Your task to perform on an android device: Toggle the flashlight Image 0: 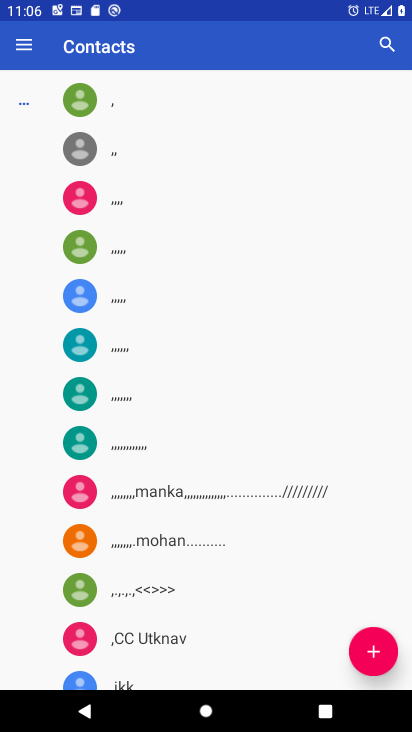
Step 0: press home button
Your task to perform on an android device: Toggle the flashlight Image 1: 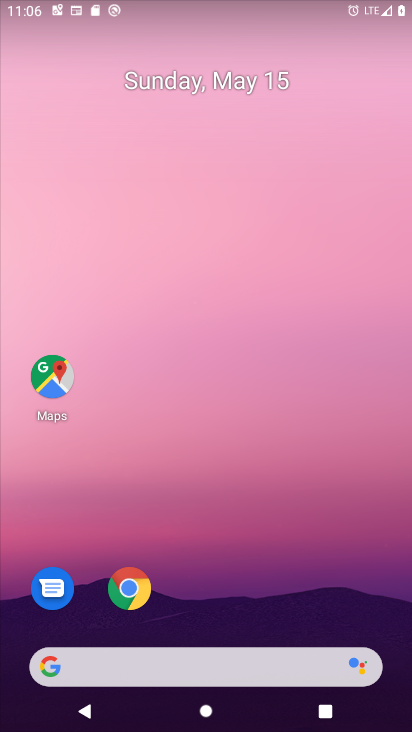
Step 1: drag from (271, 578) to (227, 160)
Your task to perform on an android device: Toggle the flashlight Image 2: 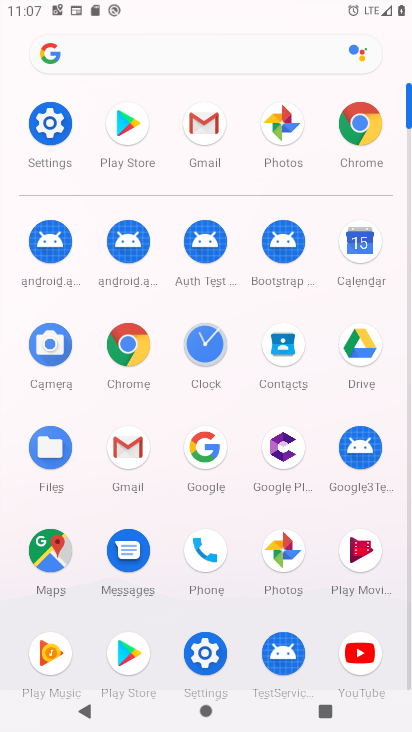
Step 2: click (37, 127)
Your task to perform on an android device: Toggle the flashlight Image 3: 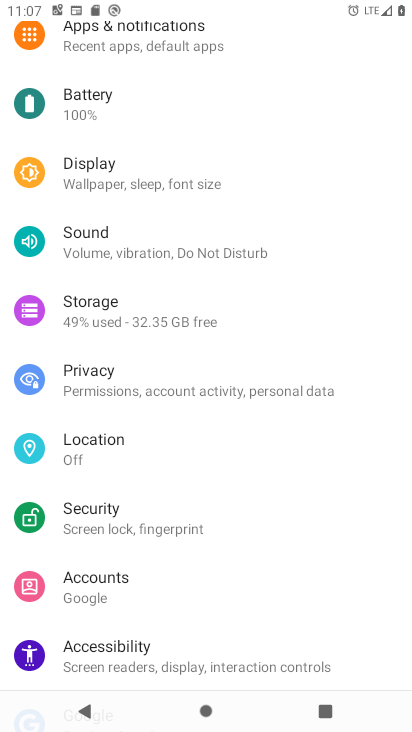
Step 3: click (155, 28)
Your task to perform on an android device: Toggle the flashlight Image 4: 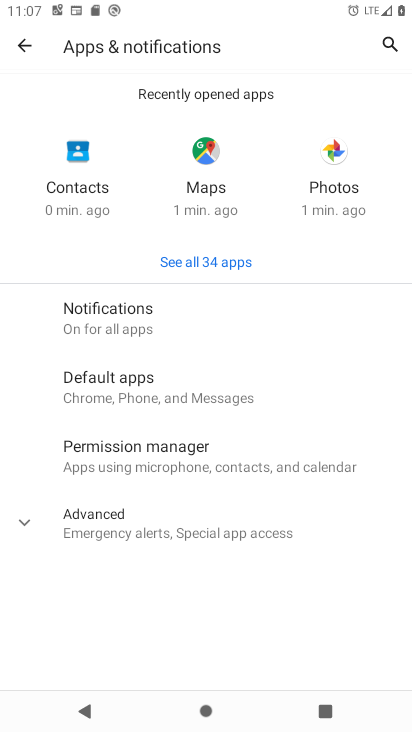
Step 4: click (147, 524)
Your task to perform on an android device: Toggle the flashlight Image 5: 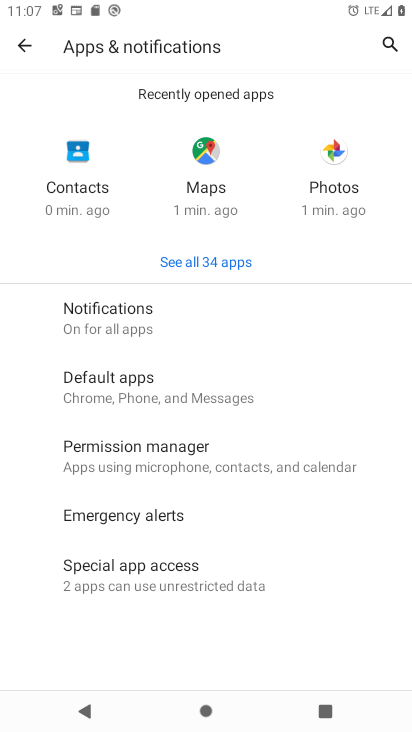
Step 5: task complete